Your task to perform on an android device: install app "Instagram" Image 0: 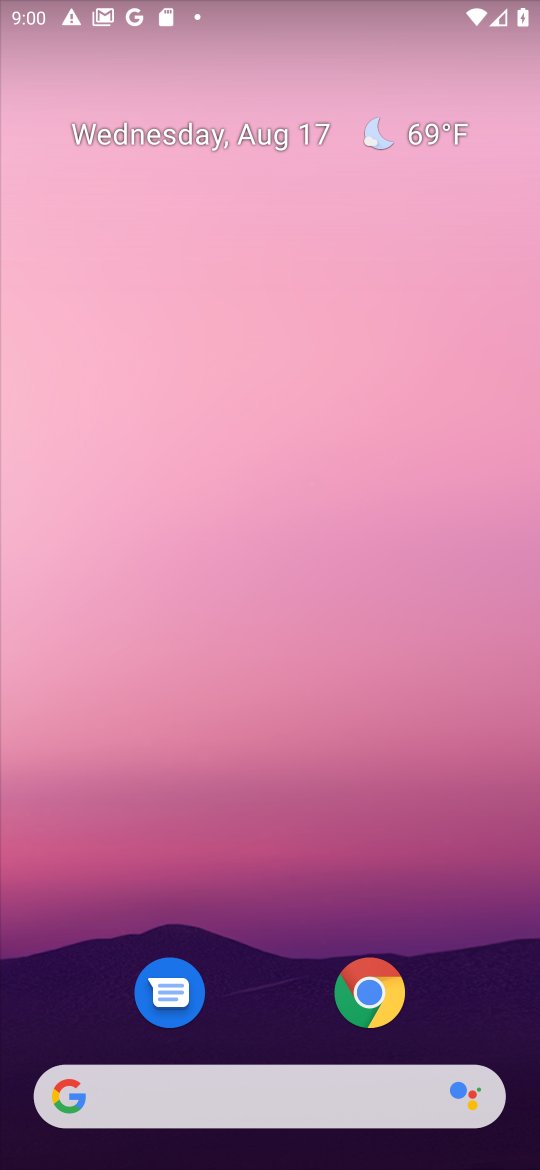
Step 0: drag from (517, 996) to (186, 16)
Your task to perform on an android device: install app "Instagram" Image 1: 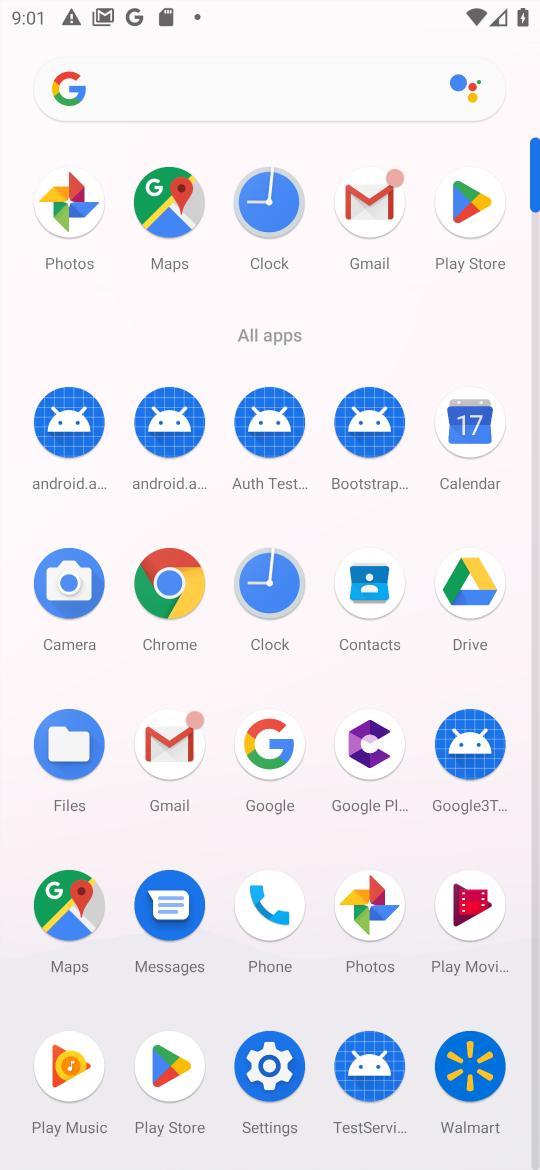
Step 1: click (184, 1057)
Your task to perform on an android device: install app "Instagram" Image 2: 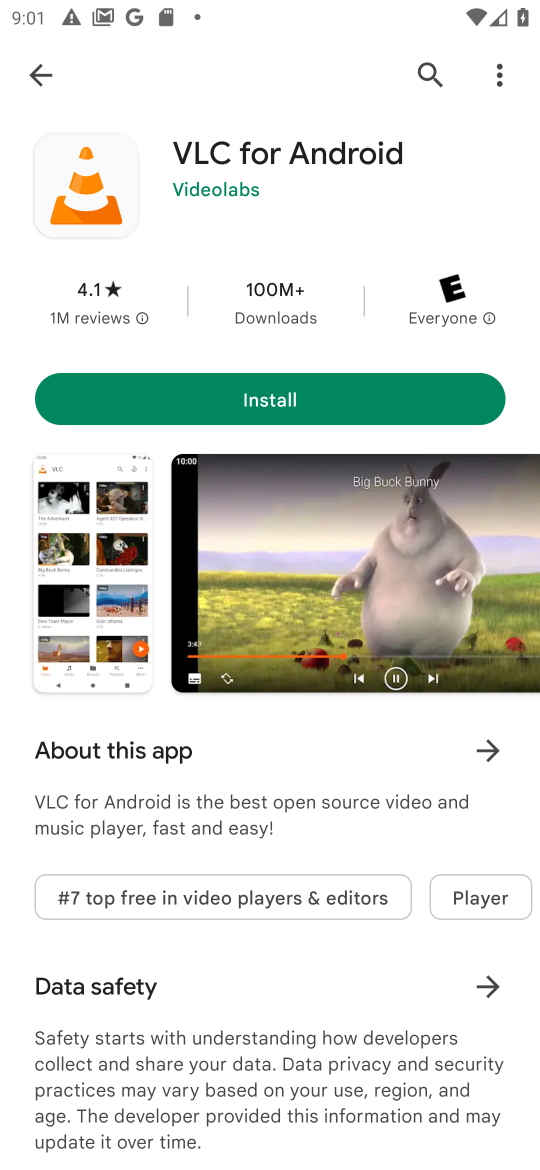
Step 2: press back button
Your task to perform on an android device: install app "Instagram" Image 3: 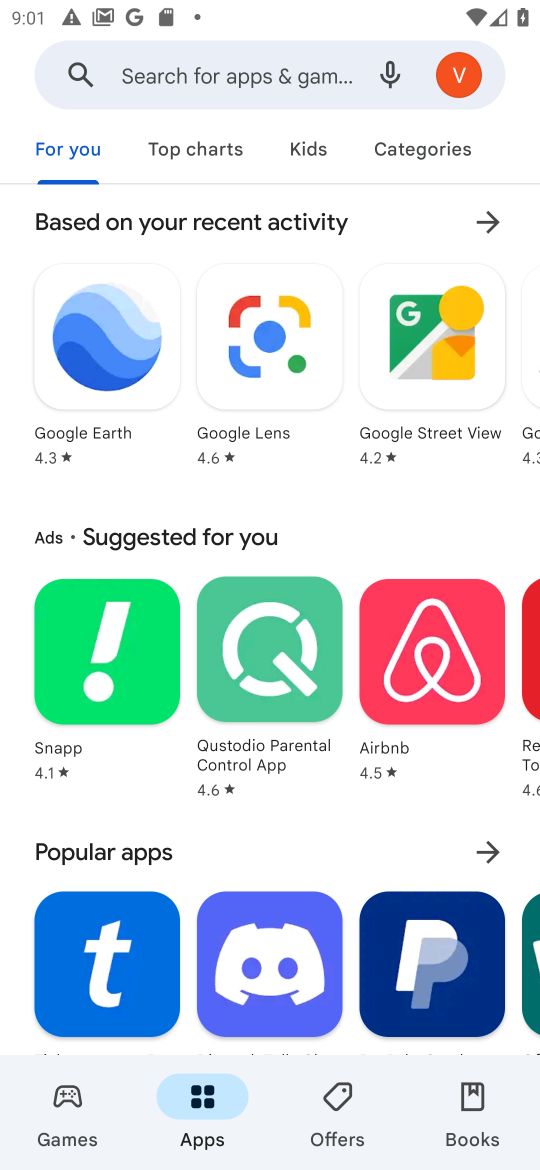
Step 3: click (192, 60)
Your task to perform on an android device: install app "Instagram" Image 4: 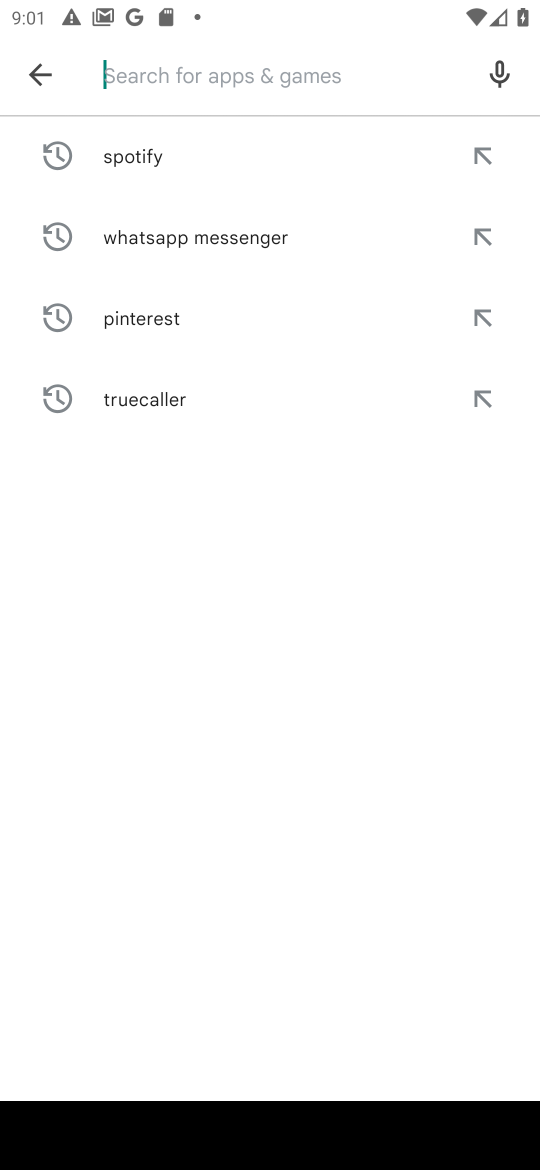
Step 4: type "Instagram"
Your task to perform on an android device: install app "Instagram" Image 5: 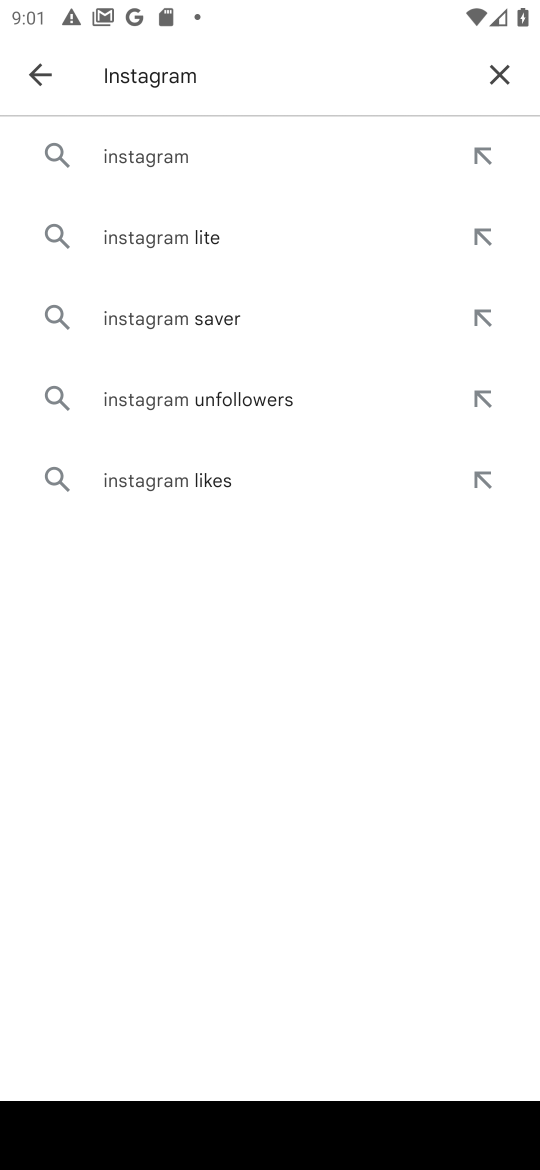
Step 5: click (165, 171)
Your task to perform on an android device: install app "Instagram" Image 6: 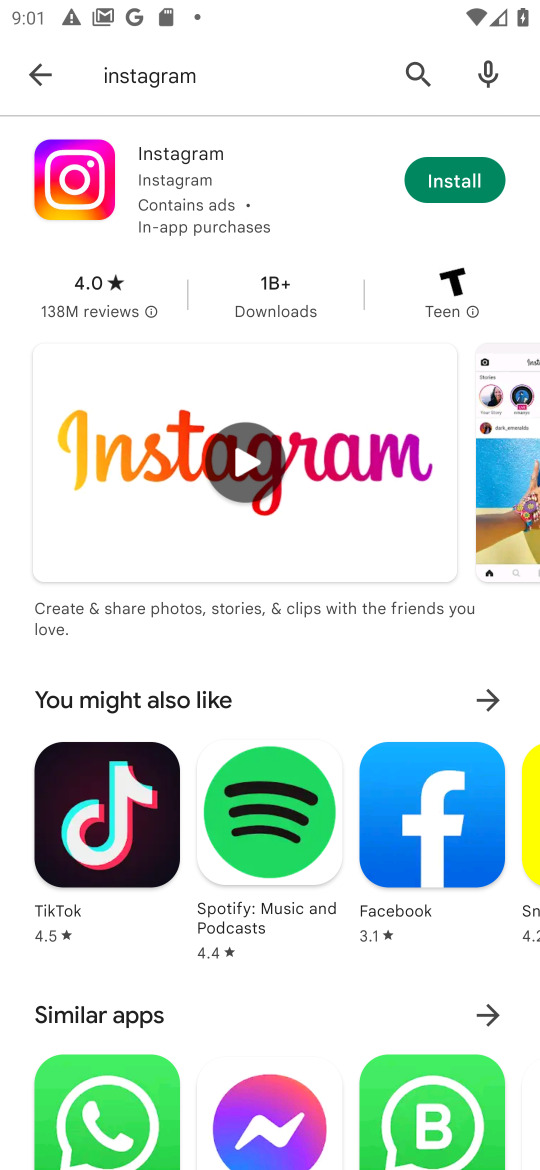
Step 6: click (455, 175)
Your task to perform on an android device: install app "Instagram" Image 7: 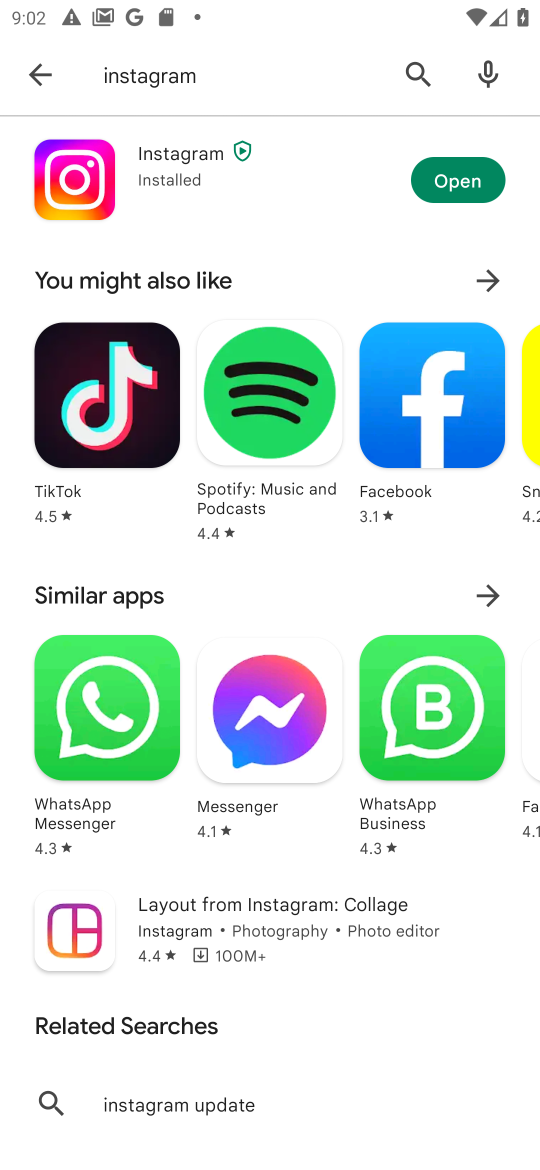
Step 7: task complete